Your task to perform on an android device: Search for the ikea sjalv lamp Image 0: 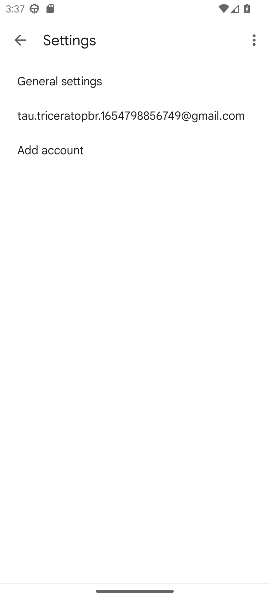
Step 0: press home button
Your task to perform on an android device: Search for the ikea sjalv lamp Image 1: 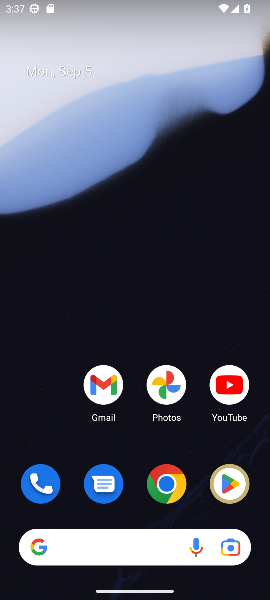
Step 1: click (166, 486)
Your task to perform on an android device: Search for the ikea sjalv lamp Image 2: 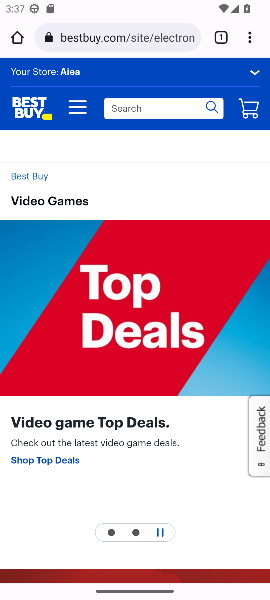
Step 2: click (82, 40)
Your task to perform on an android device: Search for the ikea sjalv lamp Image 3: 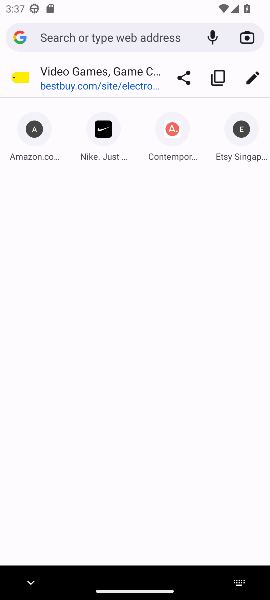
Step 3: type "ikea sjalv lamp"
Your task to perform on an android device: Search for the ikea sjalv lamp Image 4: 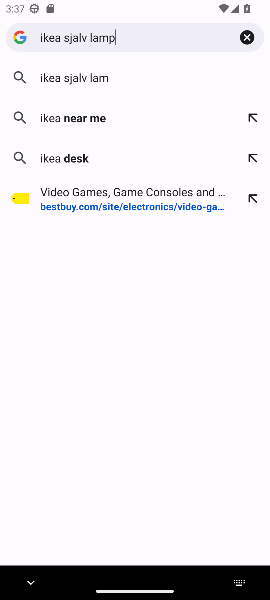
Step 4: press enter
Your task to perform on an android device: Search for the ikea sjalv lamp Image 5: 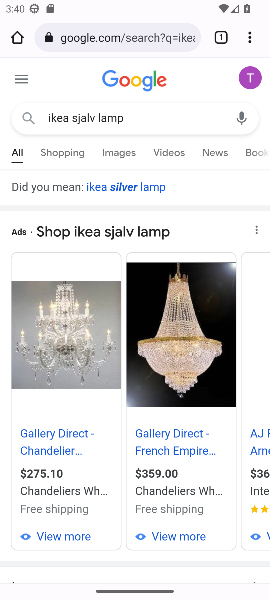
Step 5: task complete